Your task to perform on an android device: Open calendar and show me the second week of next month Image 0: 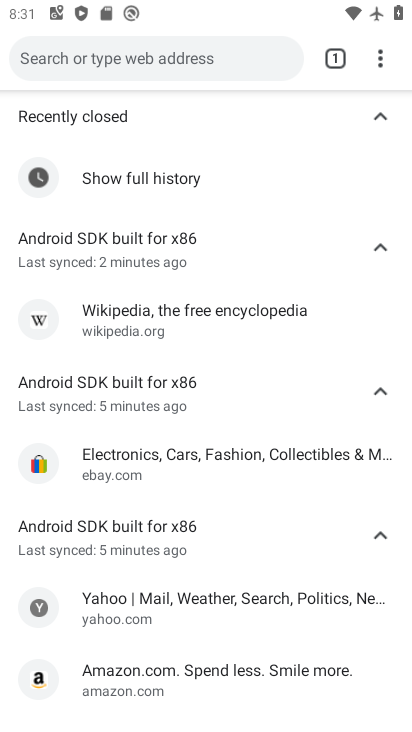
Step 0: press home button
Your task to perform on an android device: Open calendar and show me the second week of next month Image 1: 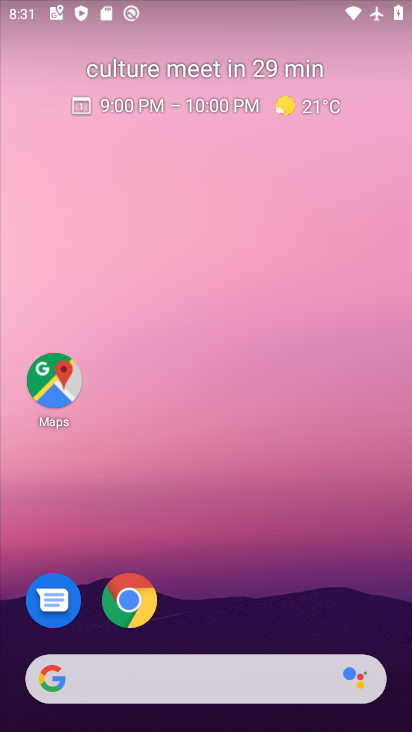
Step 1: drag from (379, 611) to (295, 69)
Your task to perform on an android device: Open calendar and show me the second week of next month Image 2: 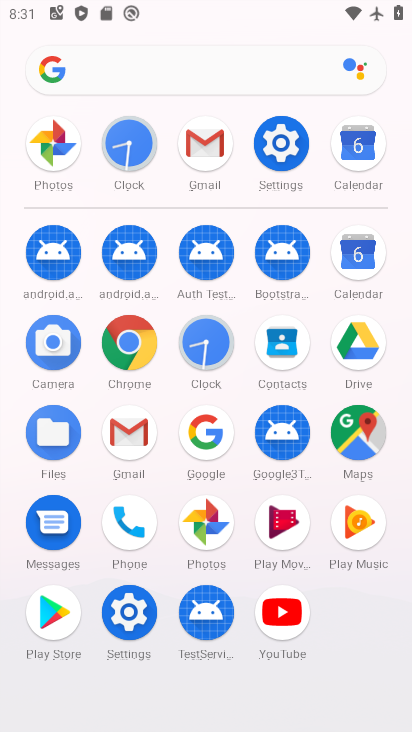
Step 2: click (360, 252)
Your task to perform on an android device: Open calendar and show me the second week of next month Image 3: 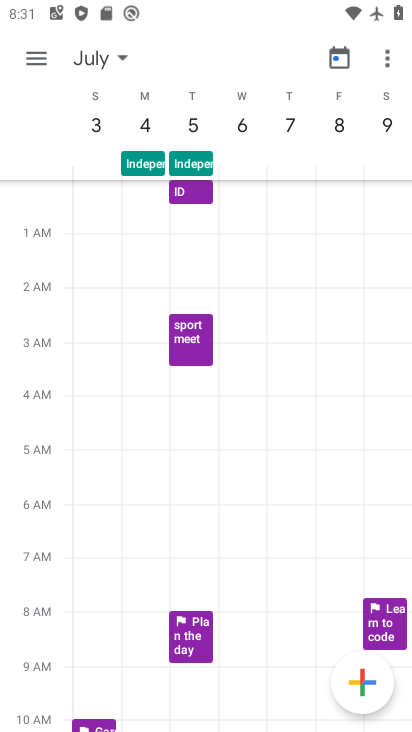
Step 3: click (121, 60)
Your task to perform on an android device: Open calendar and show me the second week of next month Image 4: 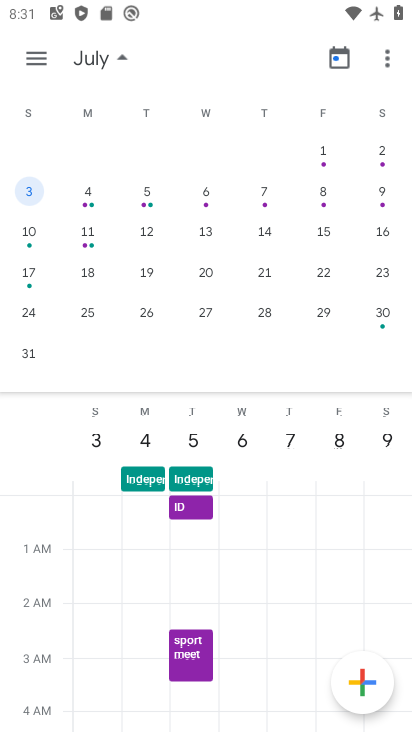
Step 4: click (29, 234)
Your task to perform on an android device: Open calendar and show me the second week of next month Image 5: 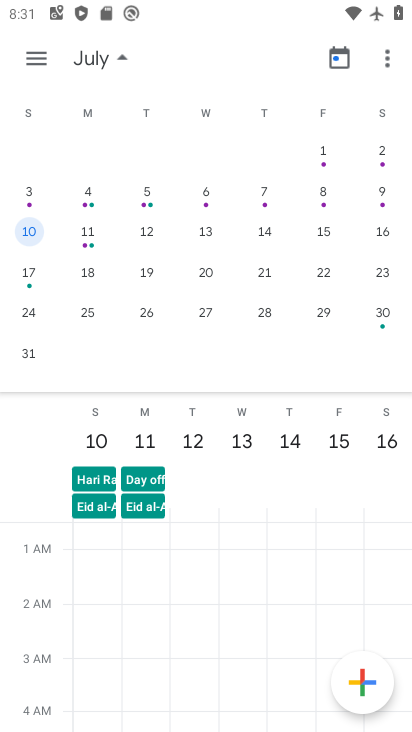
Step 5: task complete